Your task to perform on an android device: star an email in the gmail app Image 0: 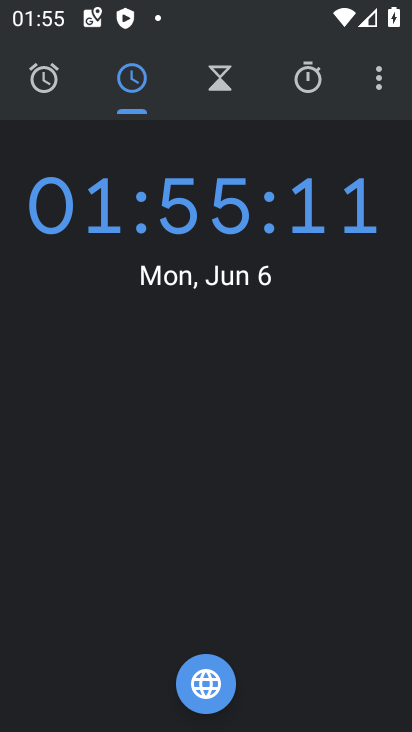
Step 0: press home button
Your task to perform on an android device: star an email in the gmail app Image 1: 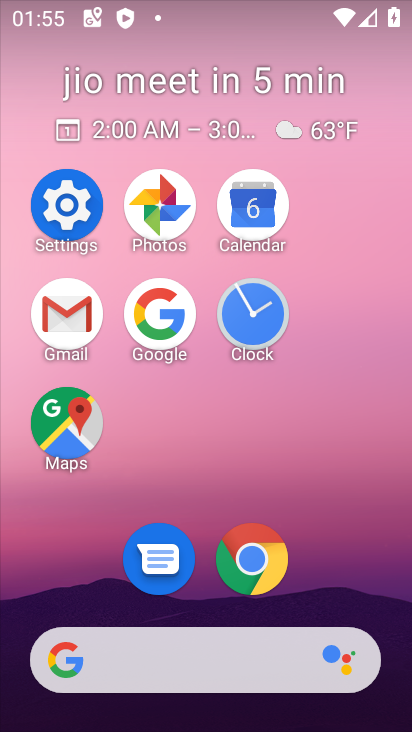
Step 1: click (97, 298)
Your task to perform on an android device: star an email in the gmail app Image 2: 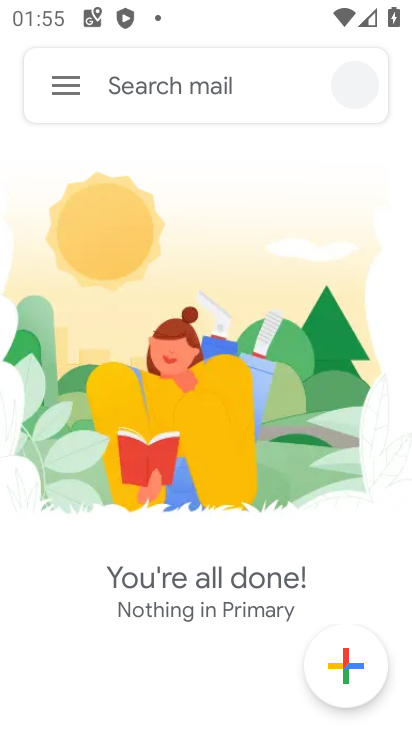
Step 2: click (76, 110)
Your task to perform on an android device: star an email in the gmail app Image 3: 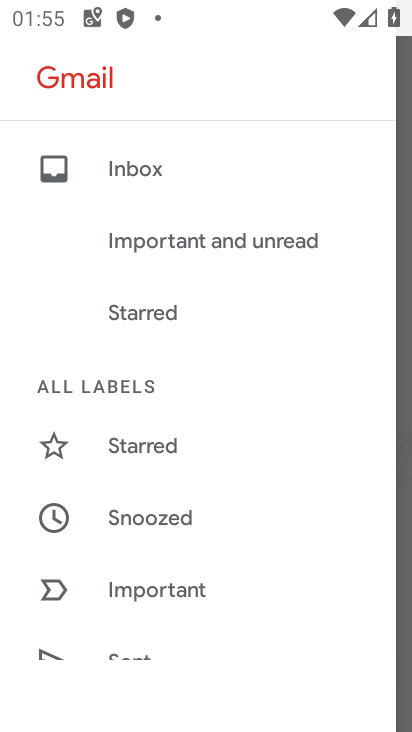
Step 3: drag from (196, 452) to (210, 207)
Your task to perform on an android device: star an email in the gmail app Image 4: 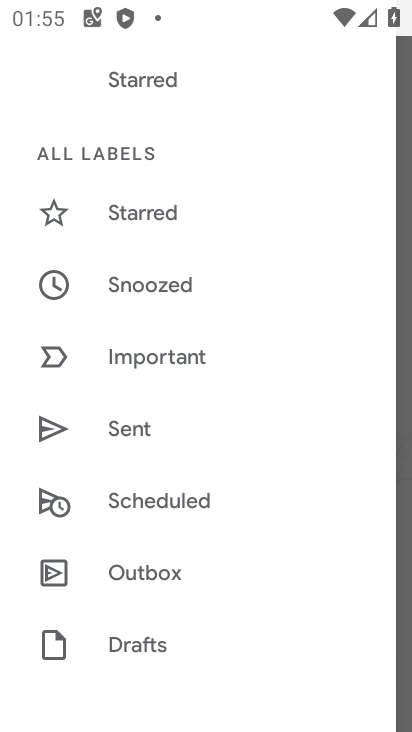
Step 4: drag from (271, 590) to (295, 273)
Your task to perform on an android device: star an email in the gmail app Image 5: 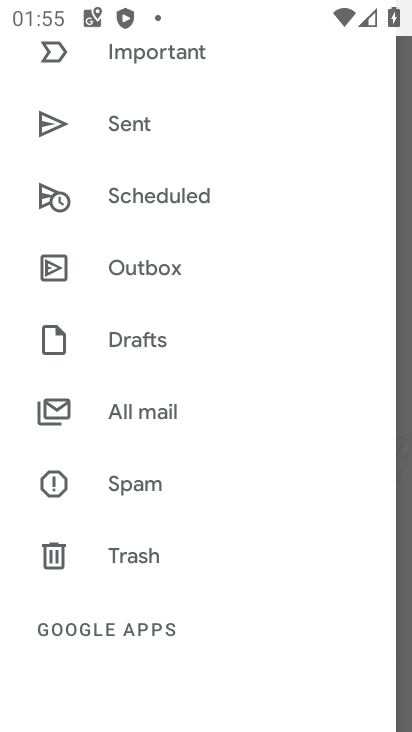
Step 5: click (191, 403)
Your task to perform on an android device: star an email in the gmail app Image 6: 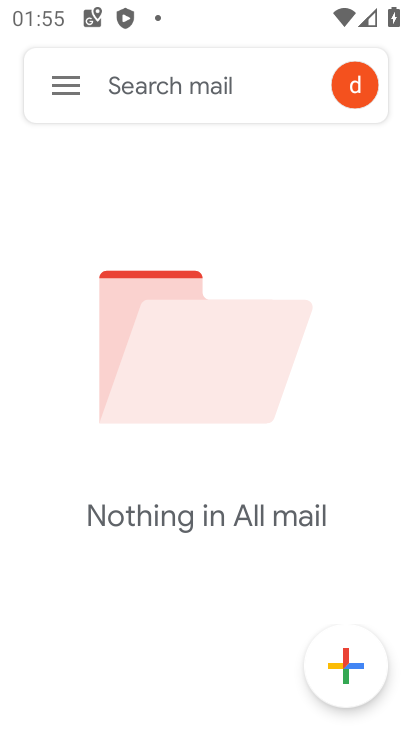
Step 6: task complete